Your task to perform on an android device: Open the phone app and click the voicemail tab. Image 0: 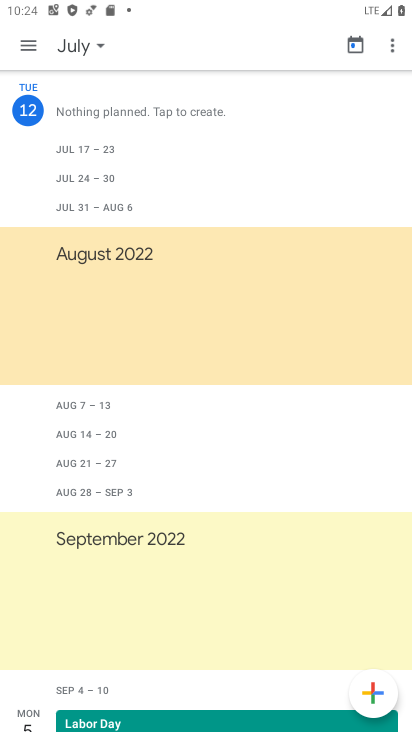
Step 0: press home button
Your task to perform on an android device: Open the phone app and click the voicemail tab. Image 1: 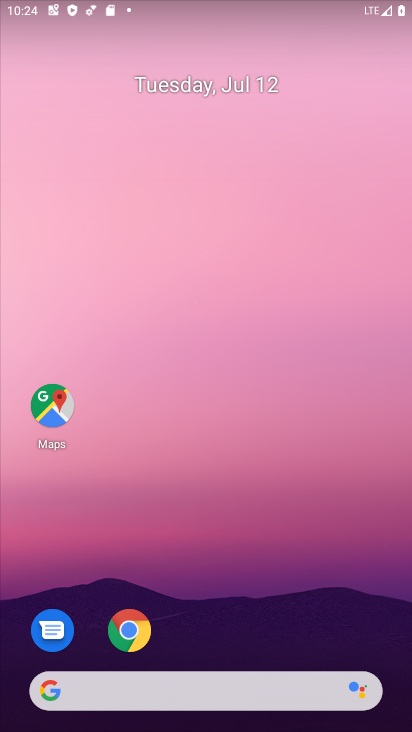
Step 1: drag from (211, 646) to (203, 72)
Your task to perform on an android device: Open the phone app and click the voicemail tab. Image 2: 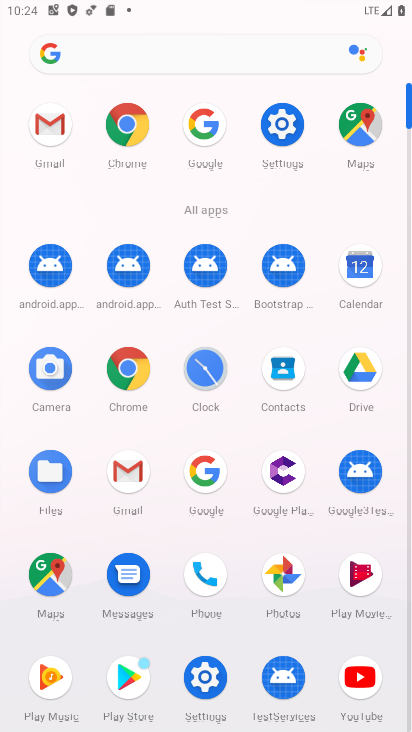
Step 2: click (206, 571)
Your task to perform on an android device: Open the phone app and click the voicemail tab. Image 3: 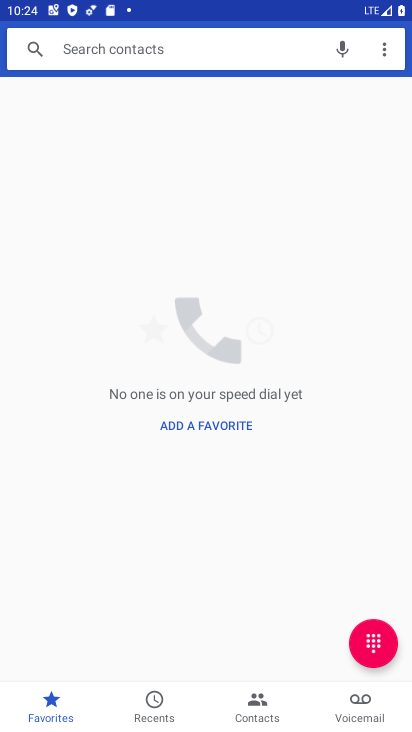
Step 3: click (356, 711)
Your task to perform on an android device: Open the phone app and click the voicemail tab. Image 4: 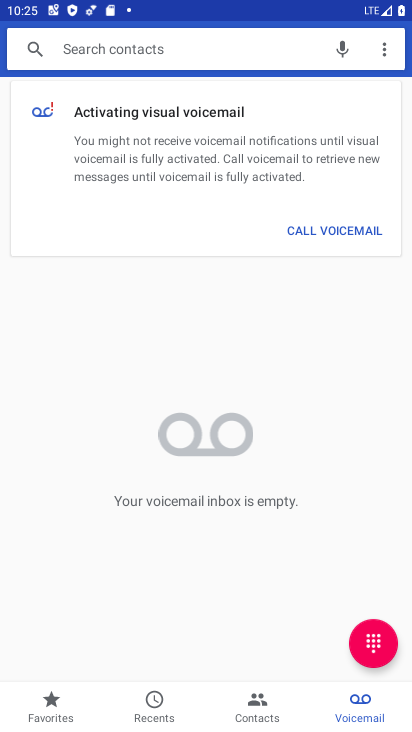
Step 4: task complete